Your task to perform on an android device: Go to Maps Image 0: 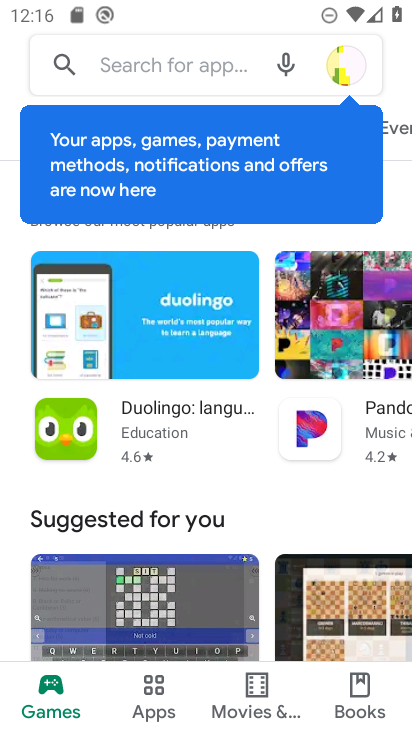
Step 0: press home button
Your task to perform on an android device: Go to Maps Image 1: 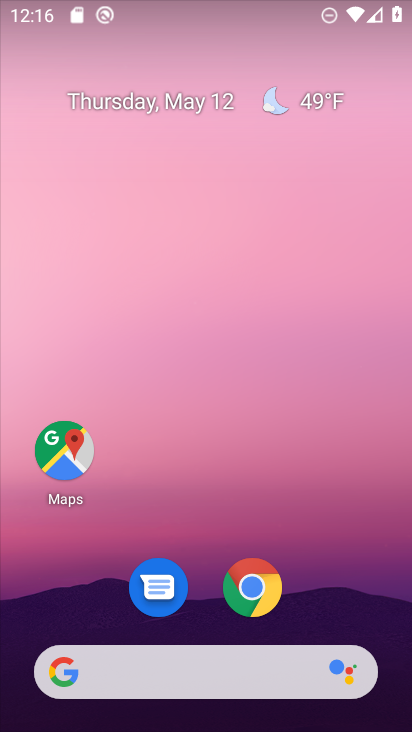
Step 1: click (43, 442)
Your task to perform on an android device: Go to Maps Image 2: 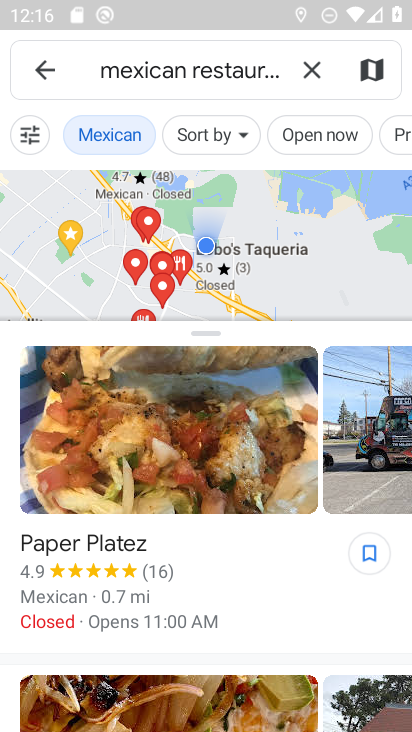
Step 2: task complete